Your task to perform on an android device: Open network settings Image 0: 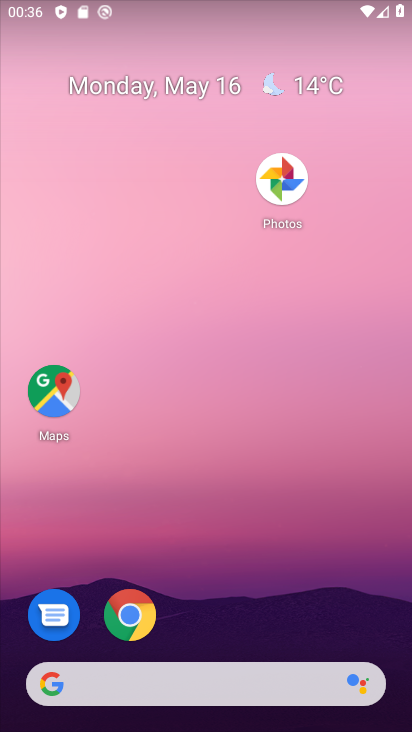
Step 0: drag from (369, 623) to (365, 128)
Your task to perform on an android device: Open network settings Image 1: 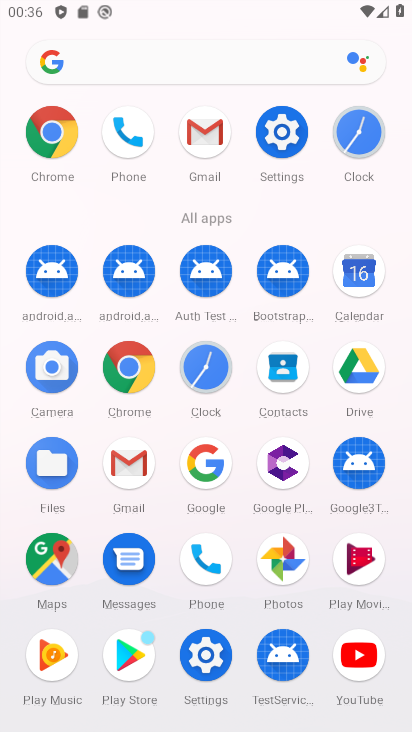
Step 1: click (201, 658)
Your task to perform on an android device: Open network settings Image 2: 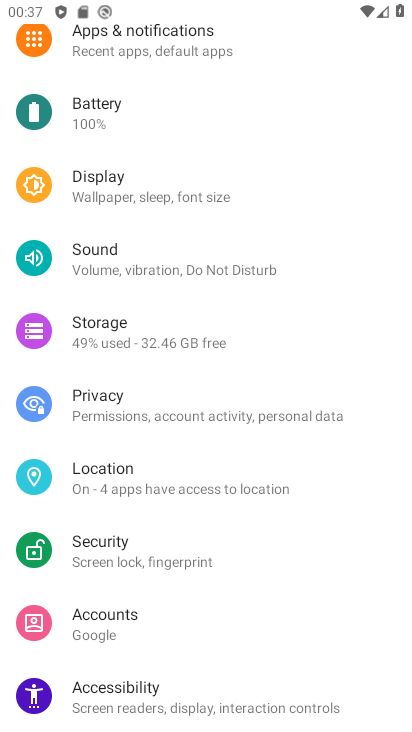
Step 2: drag from (178, 610) to (209, 436)
Your task to perform on an android device: Open network settings Image 3: 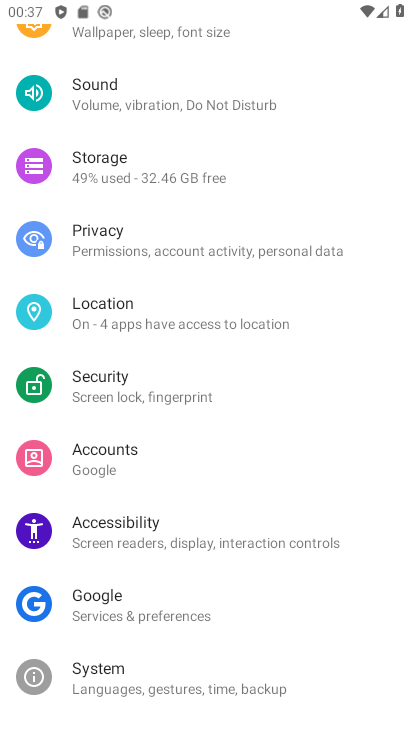
Step 3: drag from (162, 394) to (187, 543)
Your task to perform on an android device: Open network settings Image 4: 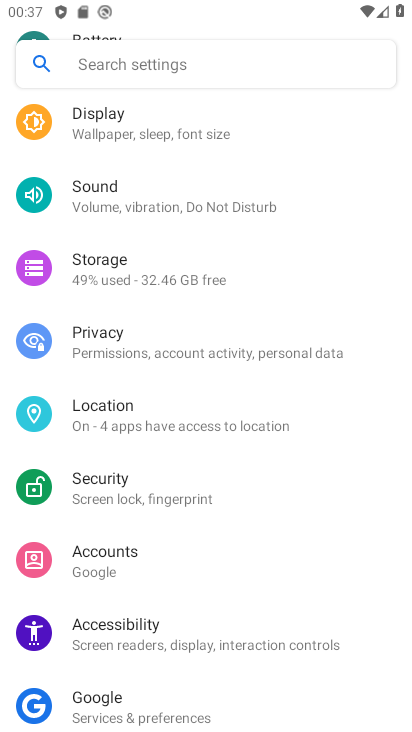
Step 4: drag from (158, 136) to (272, 517)
Your task to perform on an android device: Open network settings Image 5: 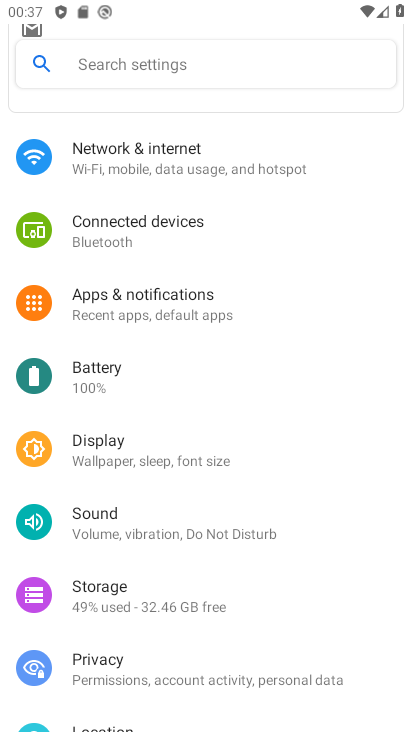
Step 5: click (184, 150)
Your task to perform on an android device: Open network settings Image 6: 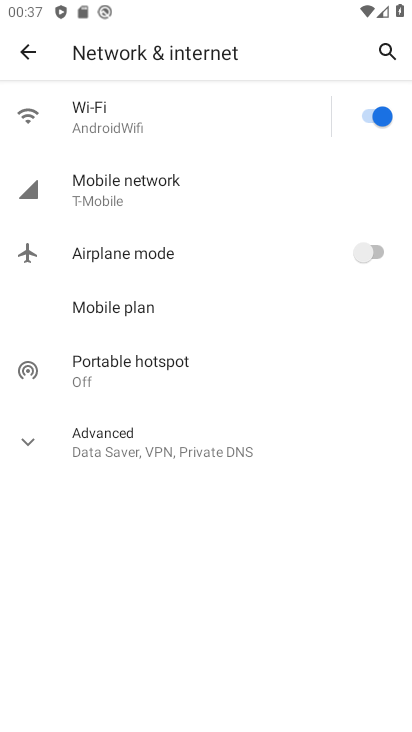
Step 6: click (269, 104)
Your task to perform on an android device: Open network settings Image 7: 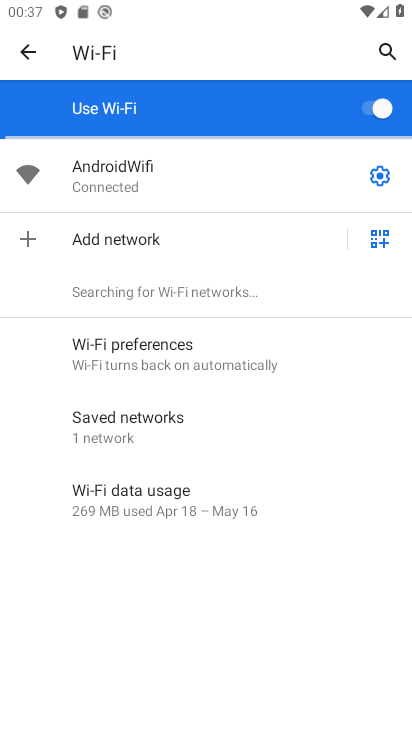
Step 7: task complete